Your task to perform on an android device: check google app version Image 0: 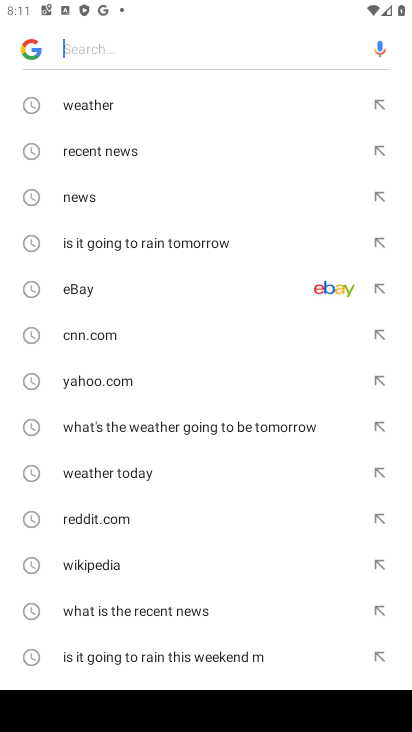
Step 0: press home button
Your task to perform on an android device: check google app version Image 1: 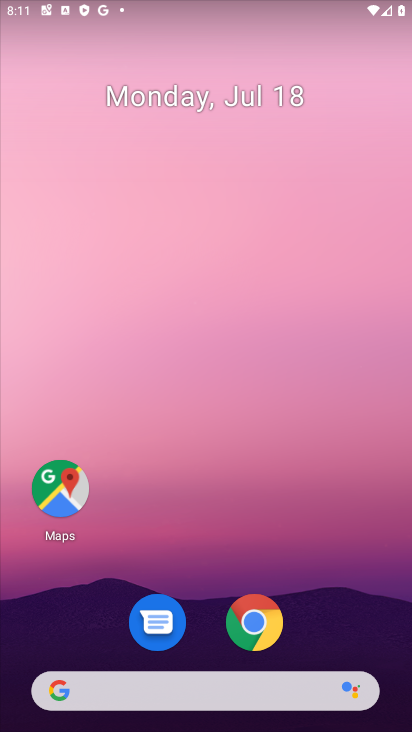
Step 1: drag from (242, 663) to (333, 25)
Your task to perform on an android device: check google app version Image 2: 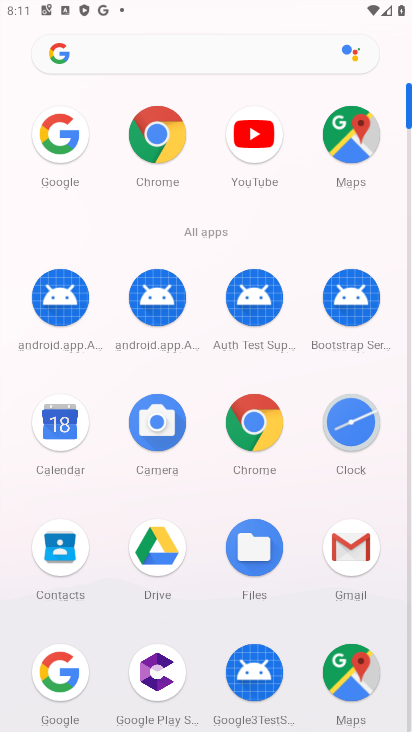
Step 2: drag from (259, 574) to (265, 234)
Your task to perform on an android device: check google app version Image 3: 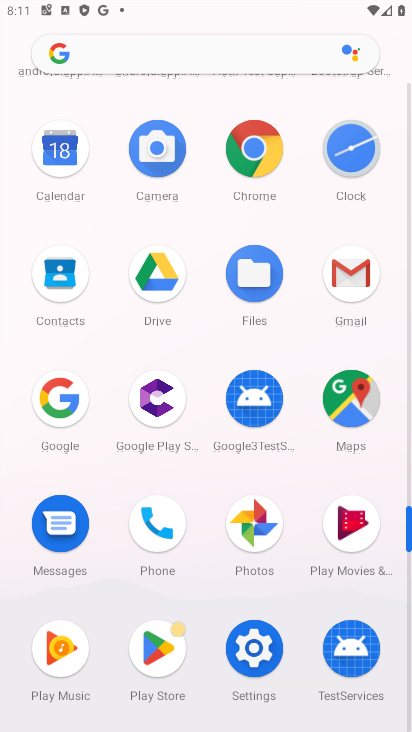
Step 3: click (51, 426)
Your task to perform on an android device: check google app version Image 4: 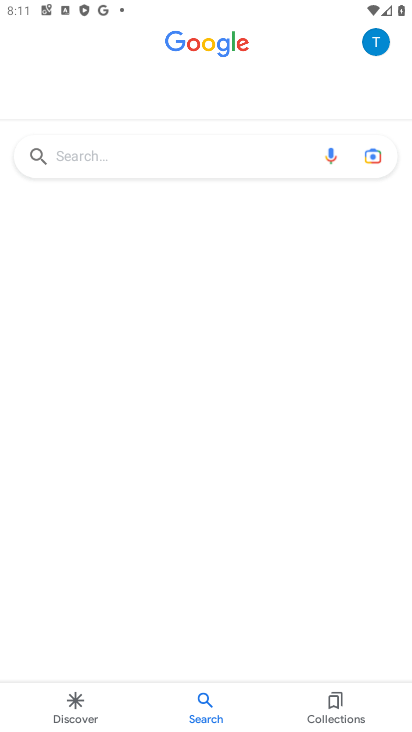
Step 4: click (380, 38)
Your task to perform on an android device: check google app version Image 5: 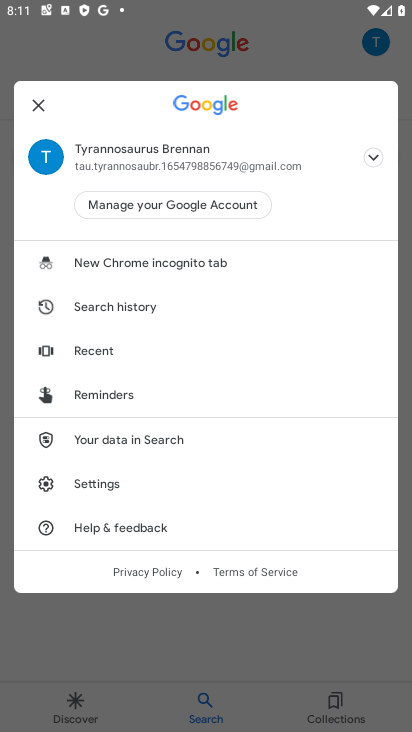
Step 5: click (101, 483)
Your task to perform on an android device: check google app version Image 6: 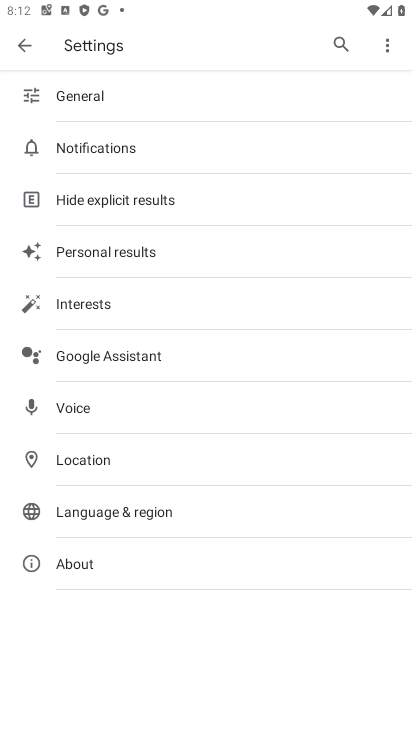
Step 6: click (104, 568)
Your task to perform on an android device: check google app version Image 7: 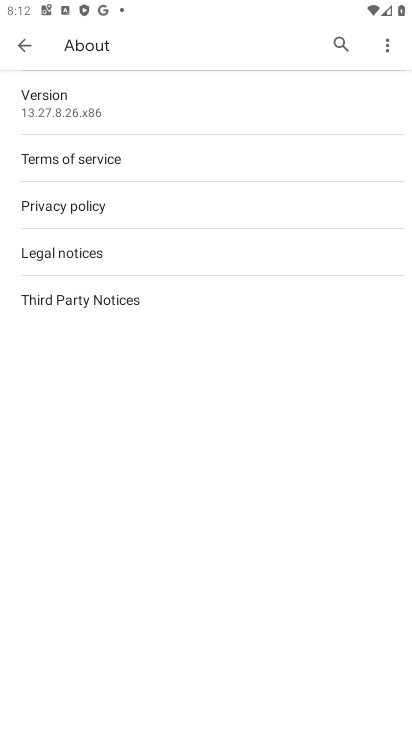
Step 7: click (107, 104)
Your task to perform on an android device: check google app version Image 8: 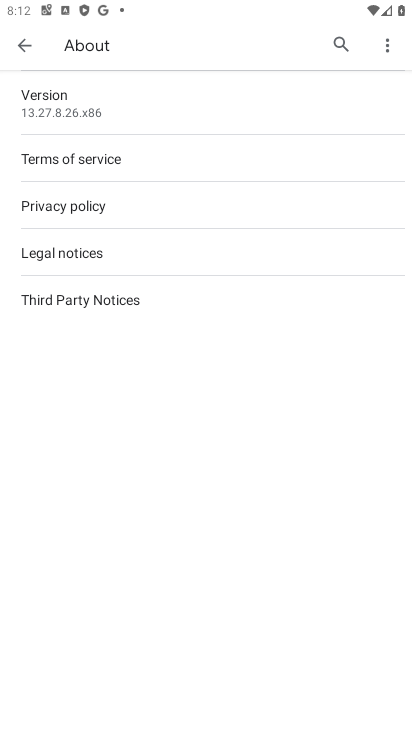
Step 8: task complete